Your task to perform on an android device: Open Google Maps Image 0: 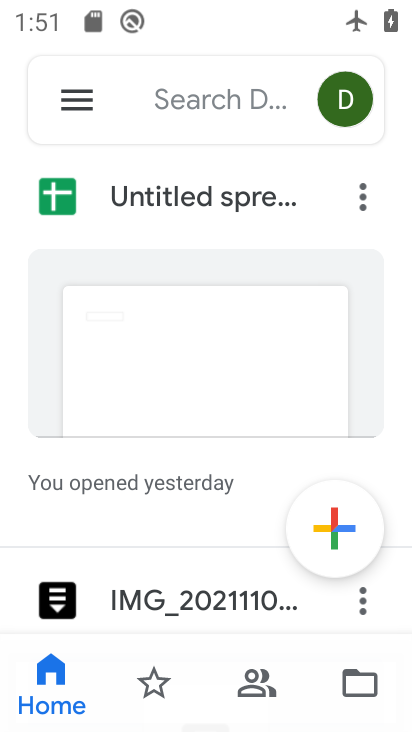
Step 0: press home button
Your task to perform on an android device: Open Google Maps Image 1: 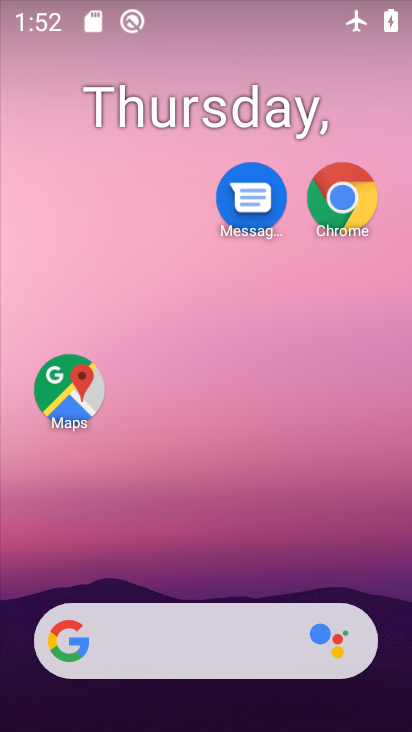
Step 1: click (179, 37)
Your task to perform on an android device: Open Google Maps Image 2: 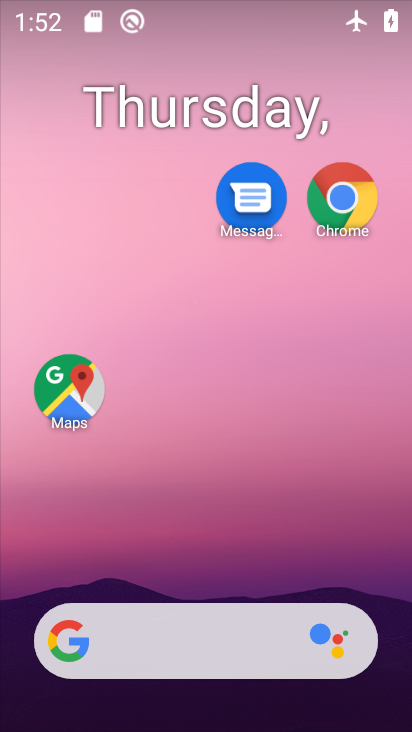
Step 2: click (77, 396)
Your task to perform on an android device: Open Google Maps Image 3: 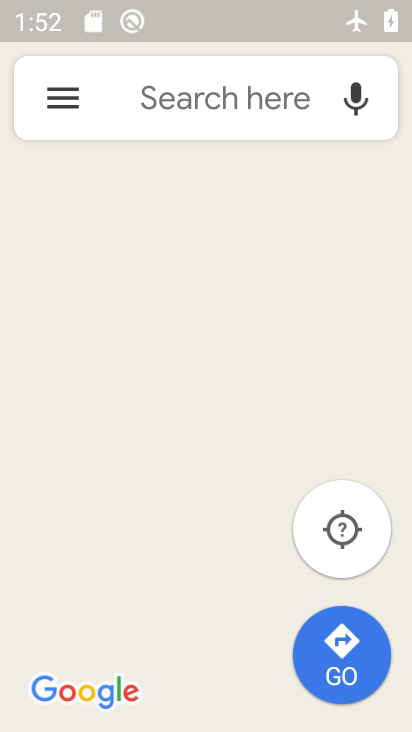
Step 3: task complete